Your task to perform on an android device: Open Reddit.com Image 0: 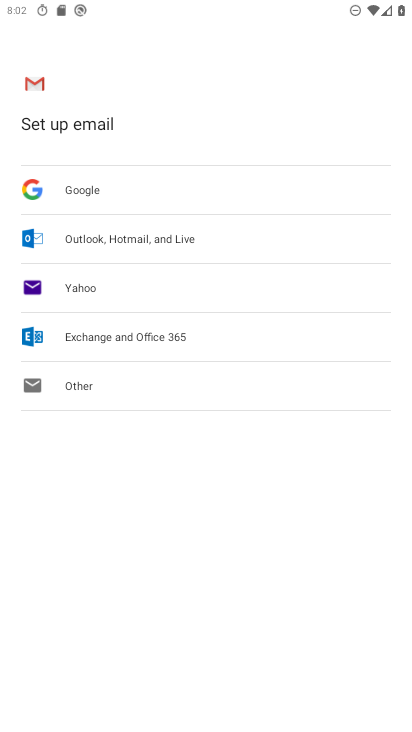
Step 0: press home button
Your task to perform on an android device: Open Reddit.com Image 1: 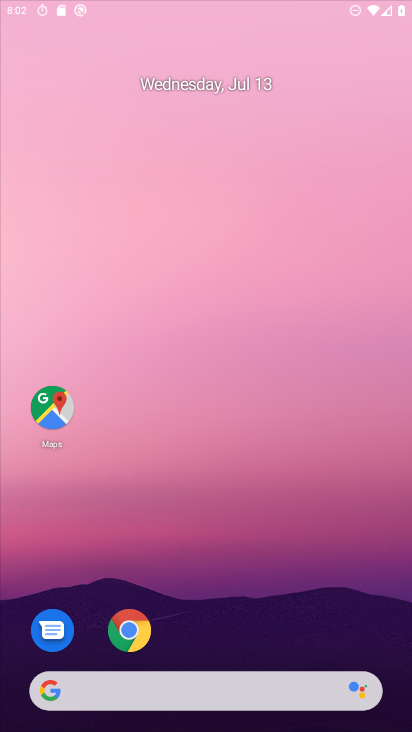
Step 1: drag from (387, 686) to (250, 23)
Your task to perform on an android device: Open Reddit.com Image 2: 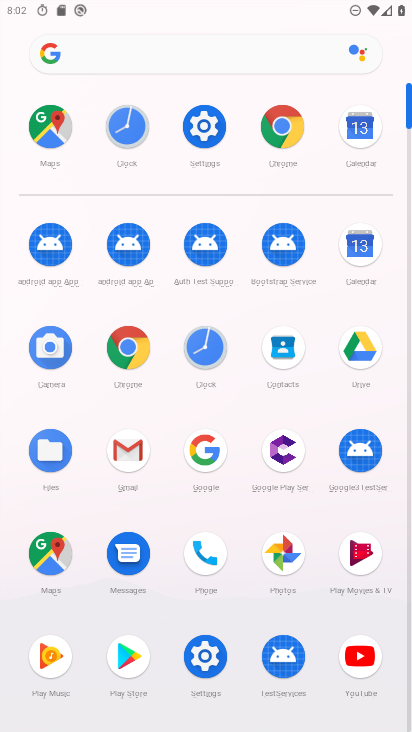
Step 2: click (198, 452)
Your task to perform on an android device: Open Reddit.com Image 3: 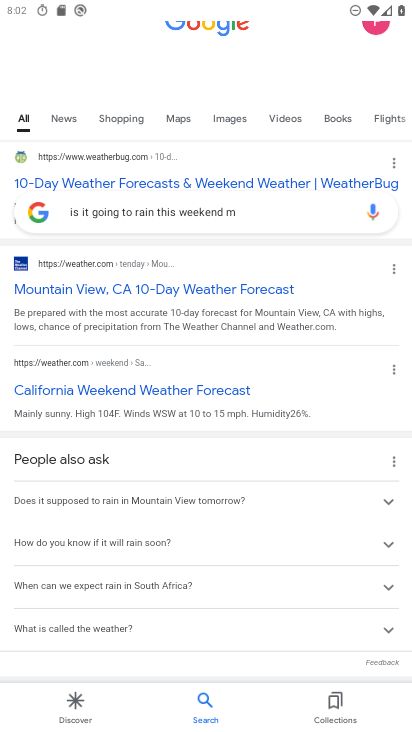
Step 3: press back button
Your task to perform on an android device: Open Reddit.com Image 4: 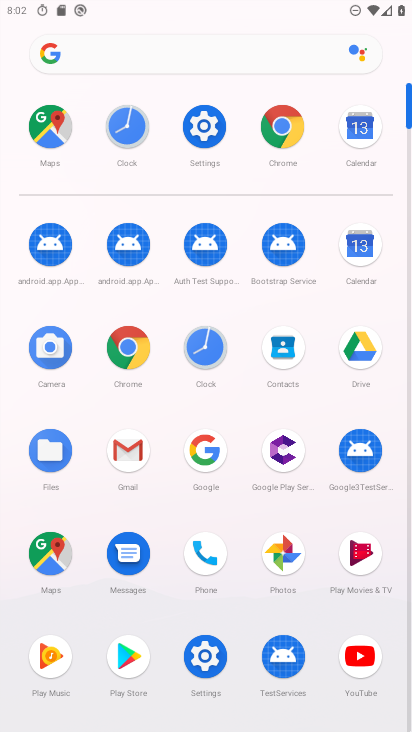
Step 4: click (213, 465)
Your task to perform on an android device: Open Reddit.com Image 5: 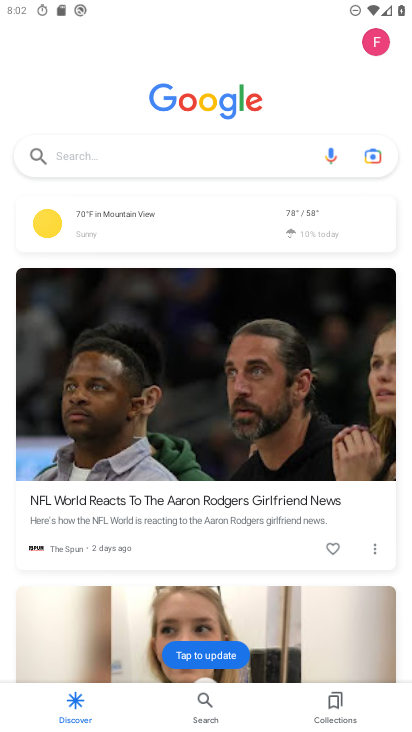
Step 5: click (136, 151)
Your task to perform on an android device: Open Reddit.com Image 6: 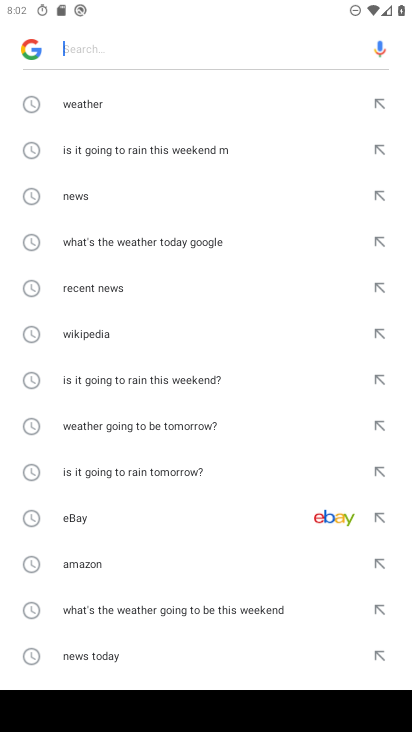
Step 6: type "Reddit.com"
Your task to perform on an android device: Open Reddit.com Image 7: 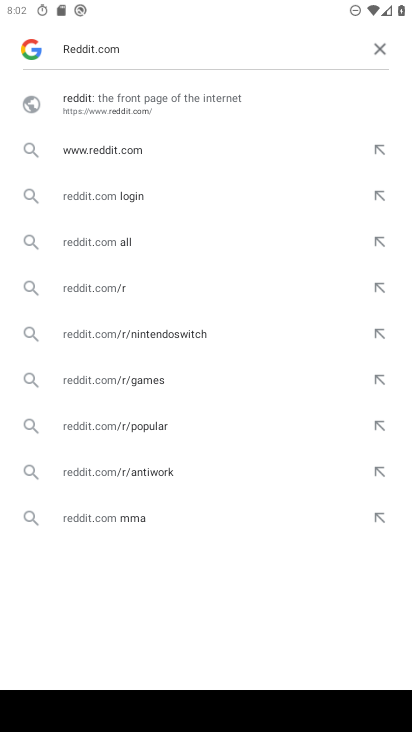
Step 7: click (162, 103)
Your task to perform on an android device: Open Reddit.com Image 8: 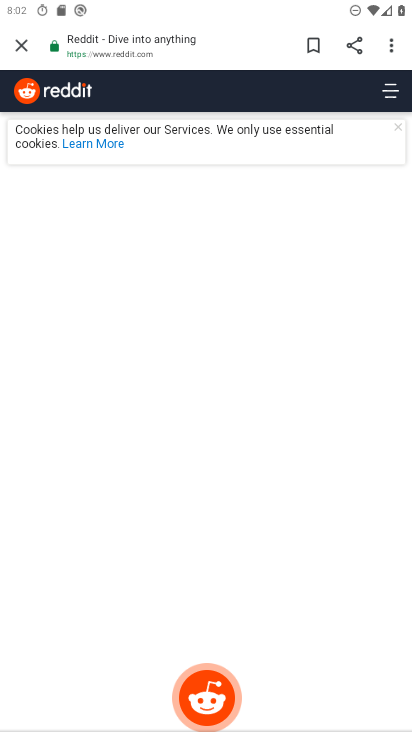
Step 8: task complete